Your task to perform on an android device: toggle data saver in the chrome app Image 0: 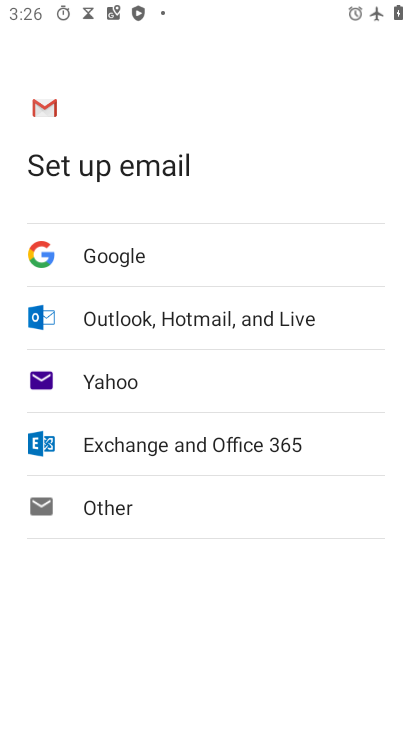
Step 0: press back button
Your task to perform on an android device: toggle data saver in the chrome app Image 1: 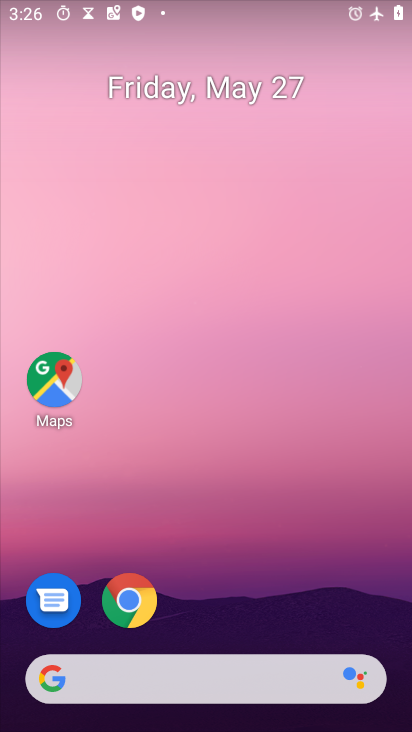
Step 1: drag from (223, 619) to (158, 9)
Your task to perform on an android device: toggle data saver in the chrome app Image 2: 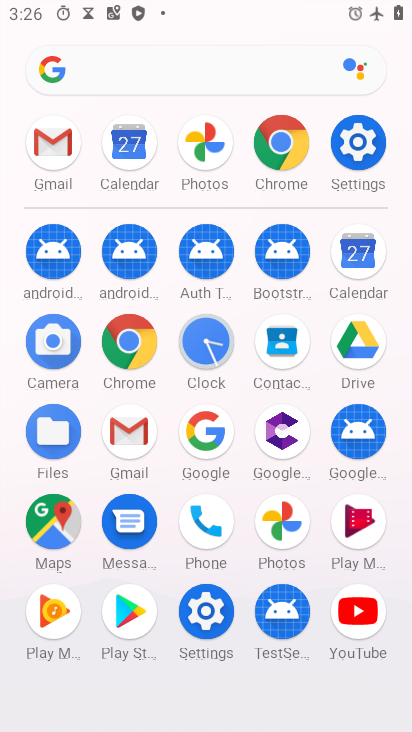
Step 2: click (41, 171)
Your task to perform on an android device: toggle data saver in the chrome app Image 3: 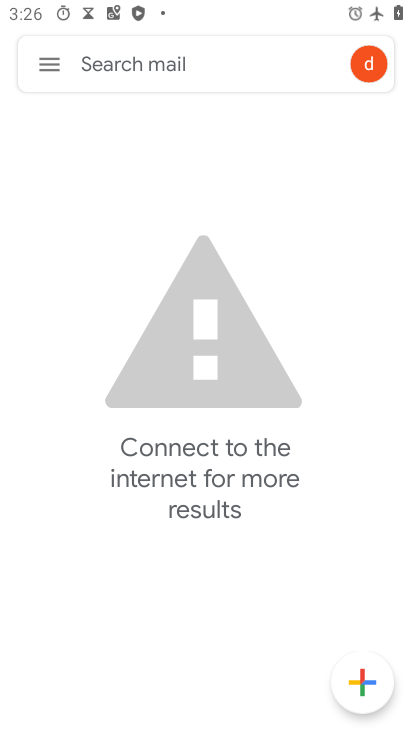
Step 3: click (38, 63)
Your task to perform on an android device: toggle data saver in the chrome app Image 4: 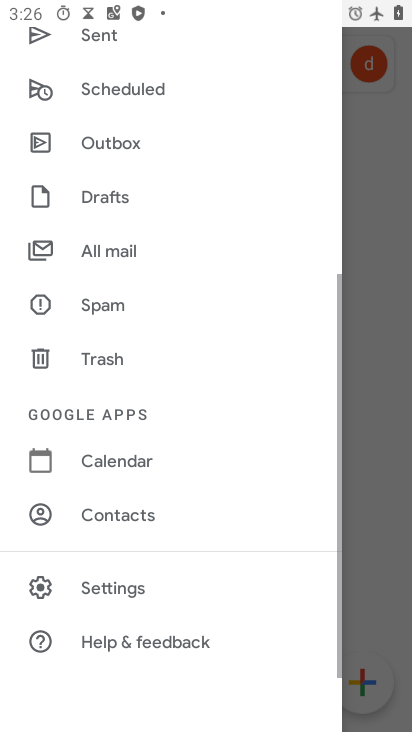
Step 4: drag from (192, 596) to (198, 92)
Your task to perform on an android device: toggle data saver in the chrome app Image 5: 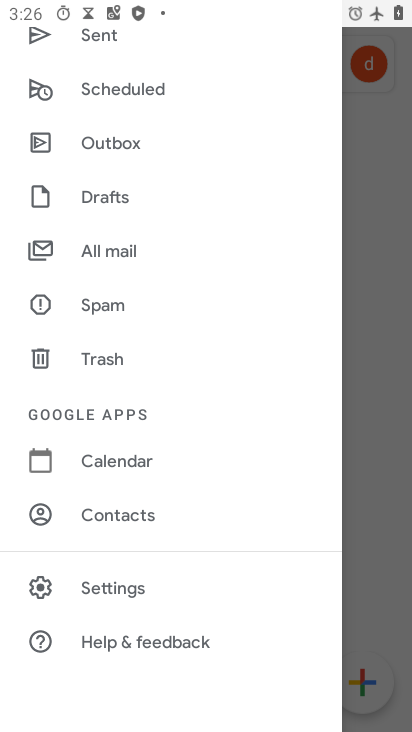
Step 5: press back button
Your task to perform on an android device: toggle data saver in the chrome app Image 6: 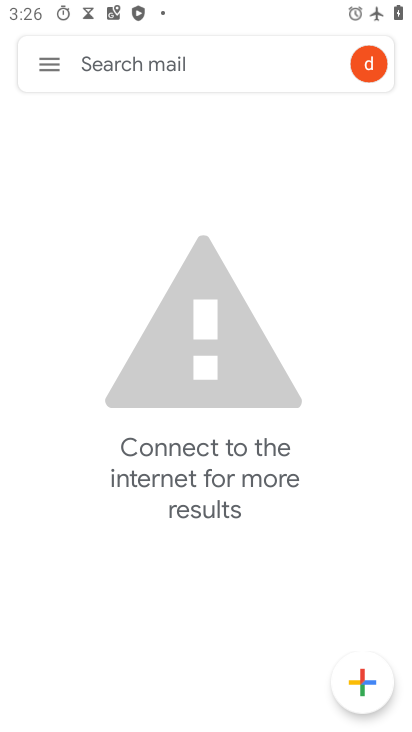
Step 6: press home button
Your task to perform on an android device: toggle data saver in the chrome app Image 7: 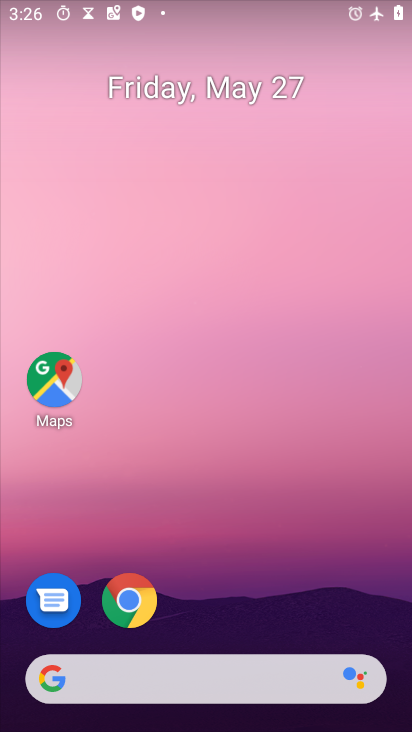
Step 7: drag from (237, 598) to (264, 47)
Your task to perform on an android device: toggle data saver in the chrome app Image 8: 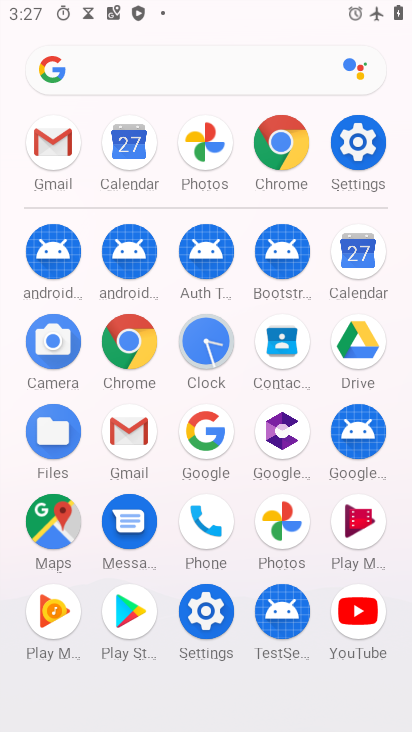
Step 8: click (128, 340)
Your task to perform on an android device: toggle data saver in the chrome app Image 9: 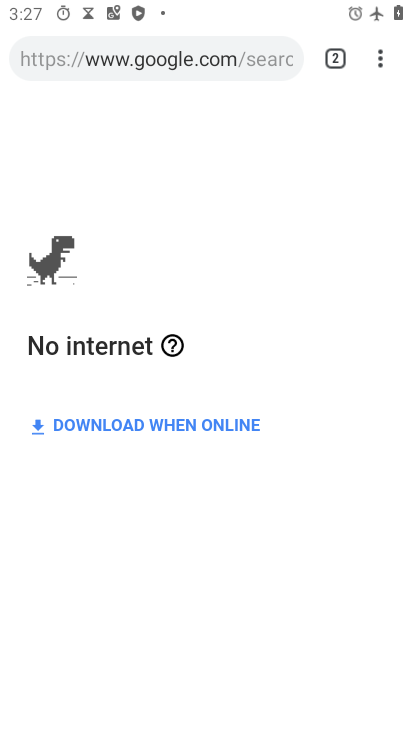
Step 9: drag from (375, 55) to (188, 624)
Your task to perform on an android device: toggle data saver in the chrome app Image 10: 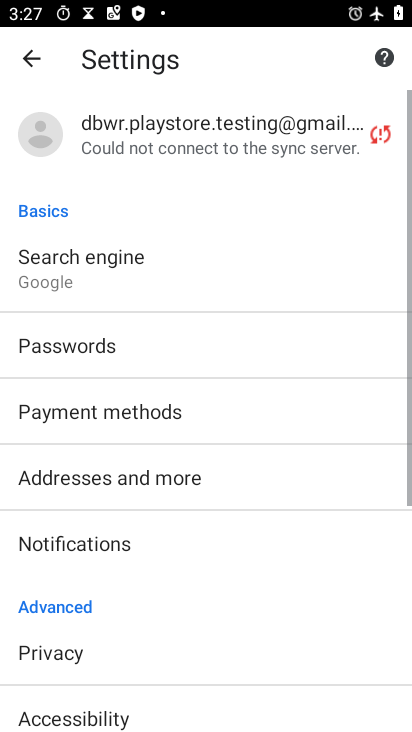
Step 10: drag from (187, 628) to (213, 186)
Your task to perform on an android device: toggle data saver in the chrome app Image 11: 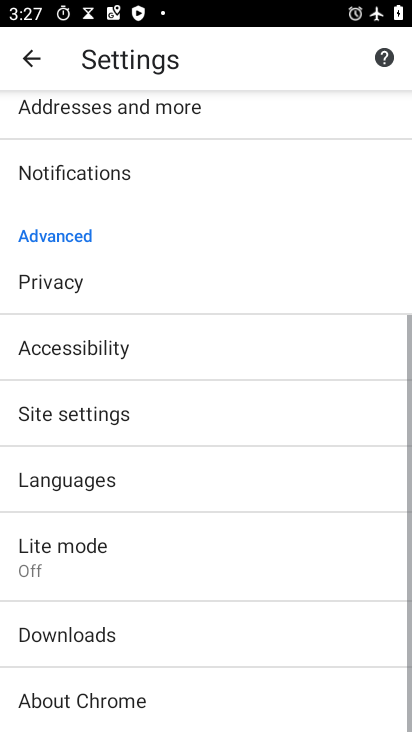
Step 11: drag from (228, 247) to (228, 193)
Your task to perform on an android device: toggle data saver in the chrome app Image 12: 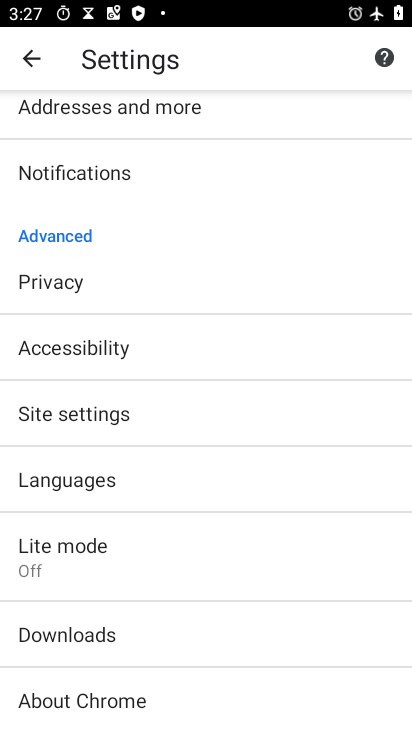
Step 12: drag from (182, 628) to (227, 217)
Your task to perform on an android device: toggle data saver in the chrome app Image 13: 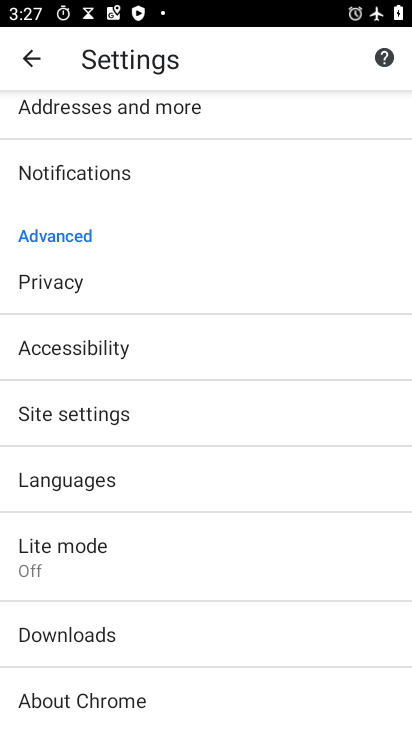
Step 13: click (94, 560)
Your task to perform on an android device: toggle data saver in the chrome app Image 14: 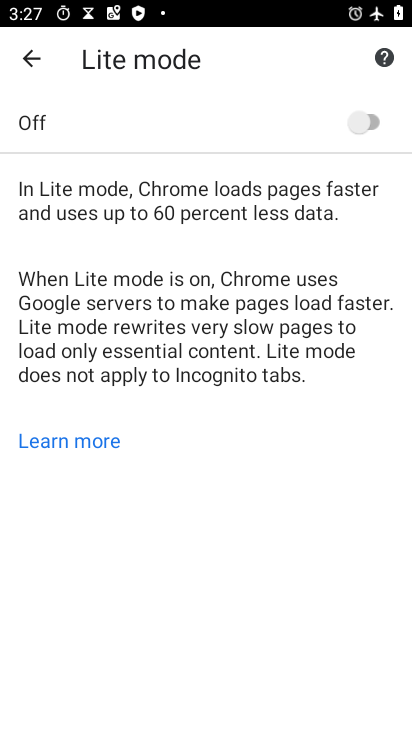
Step 14: click (352, 116)
Your task to perform on an android device: toggle data saver in the chrome app Image 15: 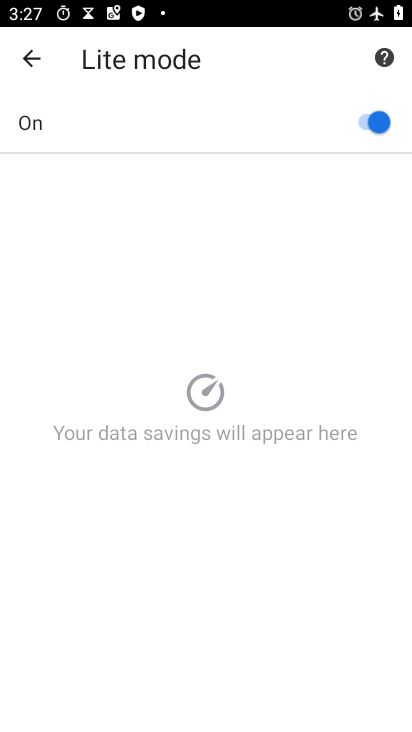
Step 15: task complete